Your task to perform on an android device: Search for Mexican restaurants on Maps Image 0: 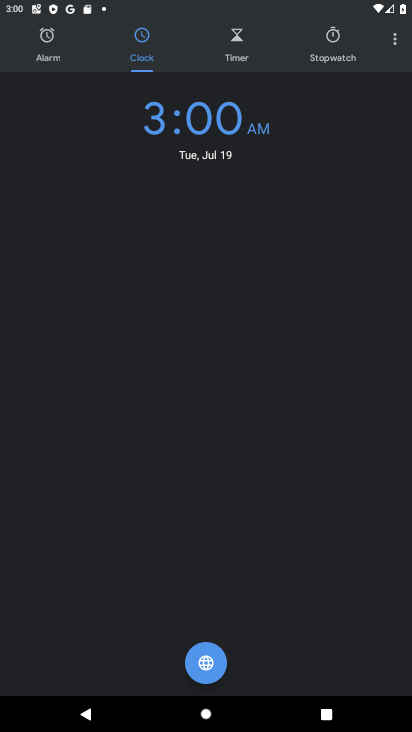
Step 0: press home button
Your task to perform on an android device: Search for Mexican restaurants on Maps Image 1: 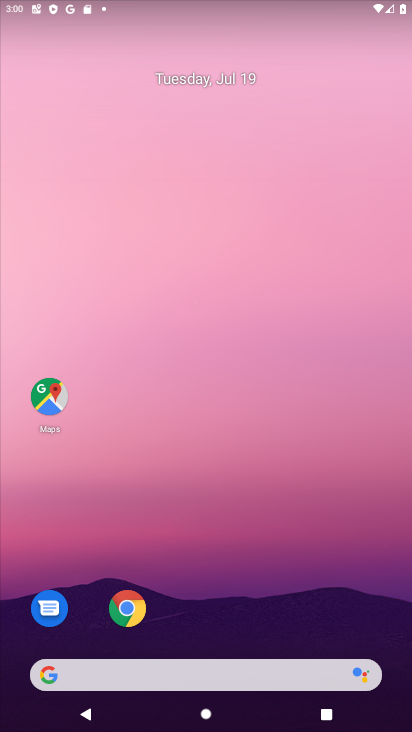
Step 1: drag from (248, 601) to (251, 61)
Your task to perform on an android device: Search for Mexican restaurants on Maps Image 2: 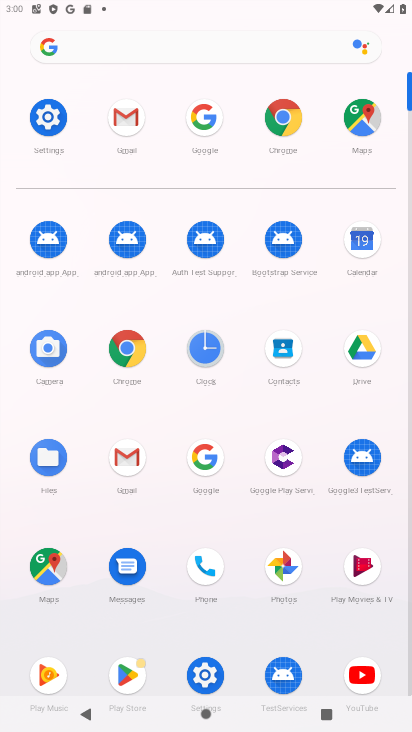
Step 2: click (54, 574)
Your task to perform on an android device: Search for Mexican restaurants on Maps Image 3: 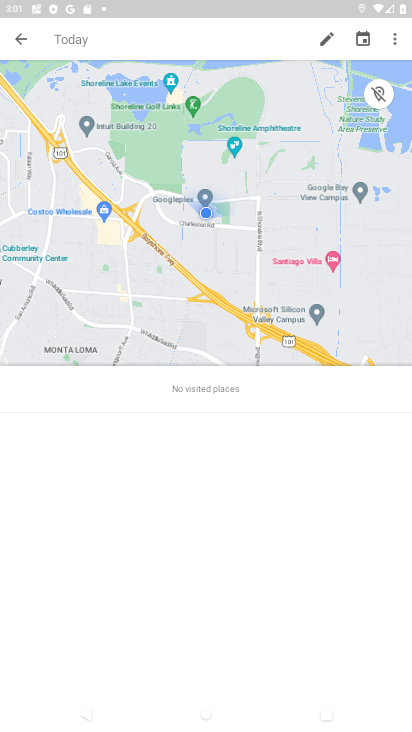
Step 3: click (29, 35)
Your task to perform on an android device: Search for Mexican restaurants on Maps Image 4: 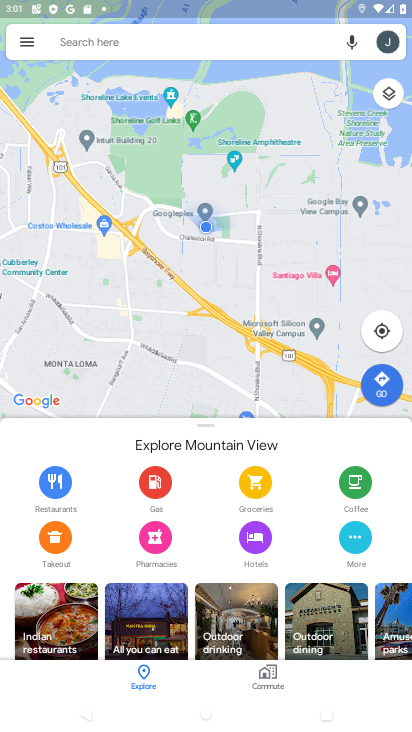
Step 4: click (130, 32)
Your task to perform on an android device: Search for Mexican restaurants on Maps Image 5: 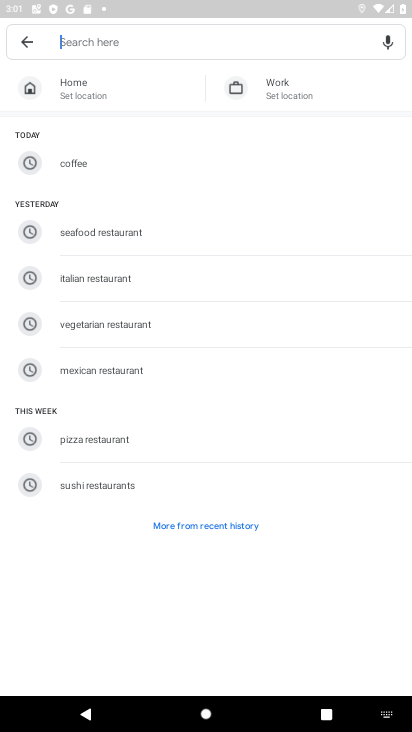
Step 5: click (139, 372)
Your task to perform on an android device: Search for Mexican restaurants on Maps Image 6: 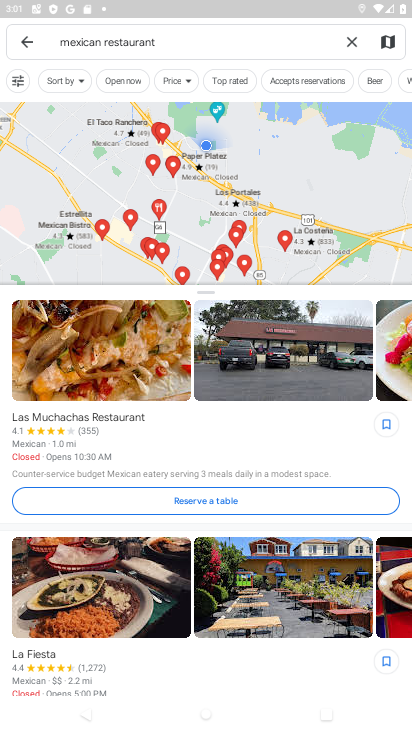
Step 6: task complete